Your task to perform on an android device: turn off improve location accuracy Image 0: 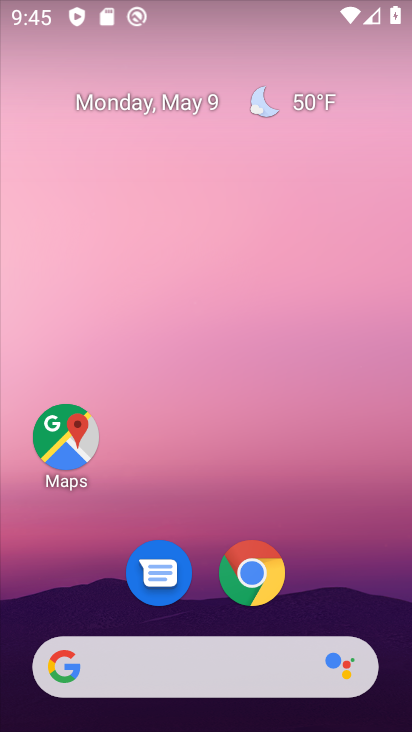
Step 0: drag from (331, 502) to (306, 0)
Your task to perform on an android device: turn off improve location accuracy Image 1: 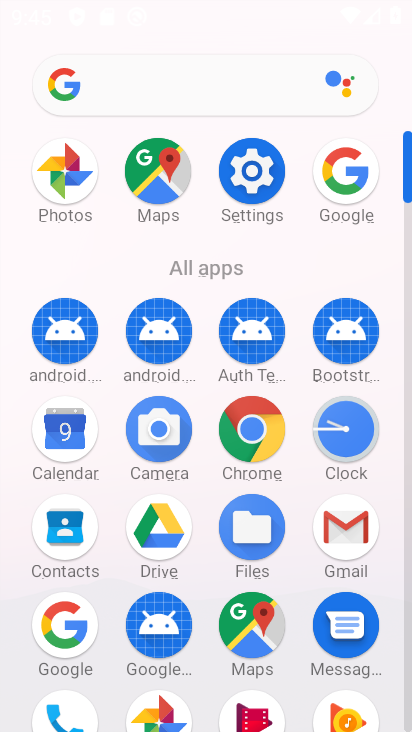
Step 1: click (261, 175)
Your task to perform on an android device: turn off improve location accuracy Image 2: 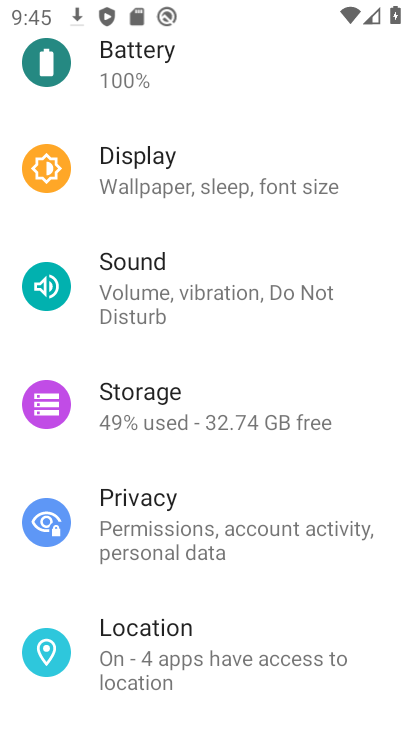
Step 2: drag from (235, 399) to (273, 165)
Your task to perform on an android device: turn off improve location accuracy Image 3: 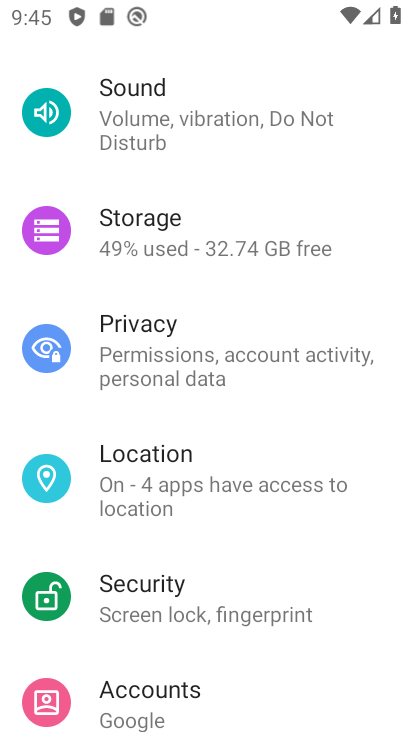
Step 3: click (187, 475)
Your task to perform on an android device: turn off improve location accuracy Image 4: 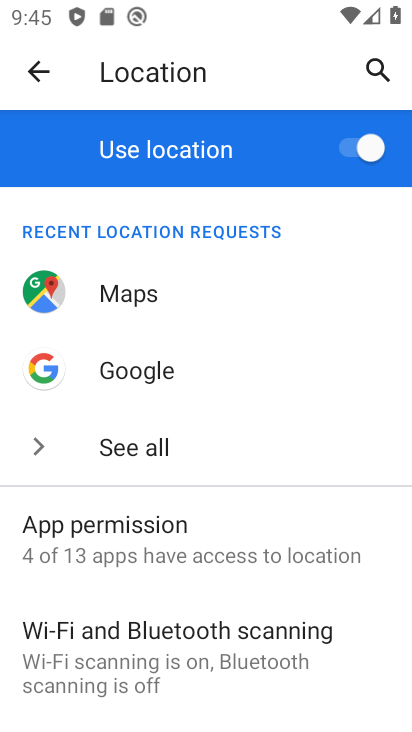
Step 4: drag from (180, 669) to (227, 194)
Your task to perform on an android device: turn off improve location accuracy Image 5: 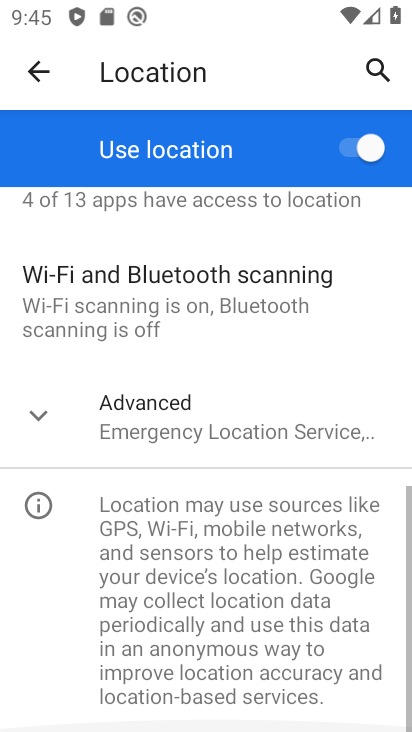
Step 5: click (152, 623)
Your task to perform on an android device: turn off improve location accuracy Image 6: 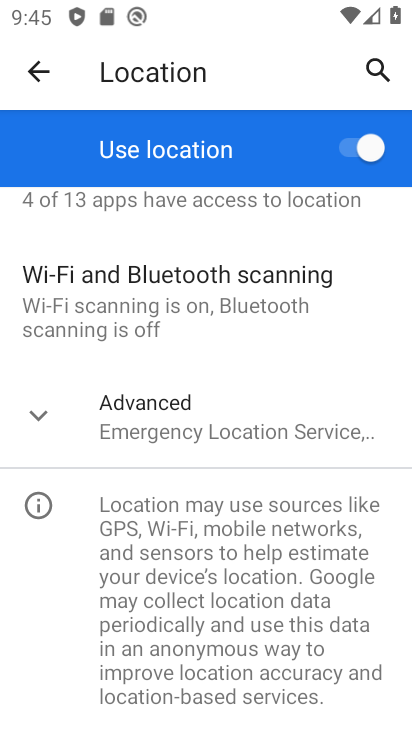
Step 6: click (176, 425)
Your task to perform on an android device: turn off improve location accuracy Image 7: 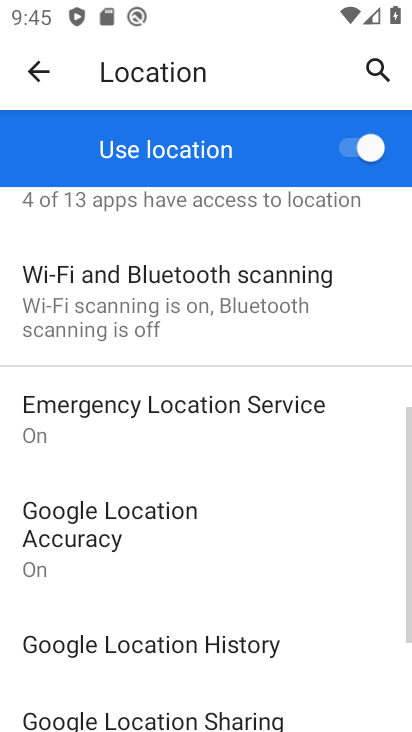
Step 7: drag from (271, 638) to (300, 353)
Your task to perform on an android device: turn off improve location accuracy Image 8: 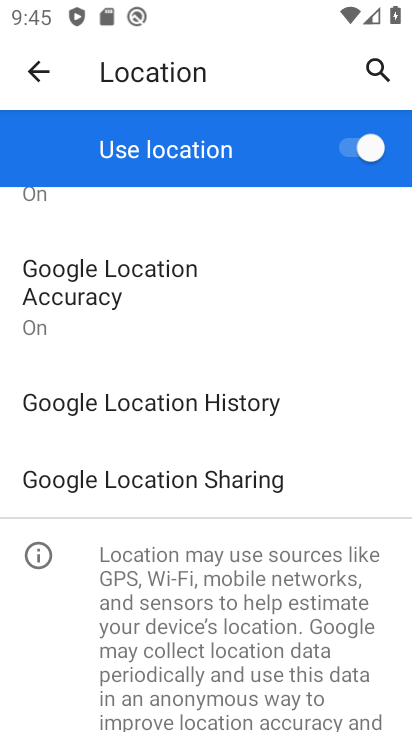
Step 8: click (145, 274)
Your task to perform on an android device: turn off improve location accuracy Image 9: 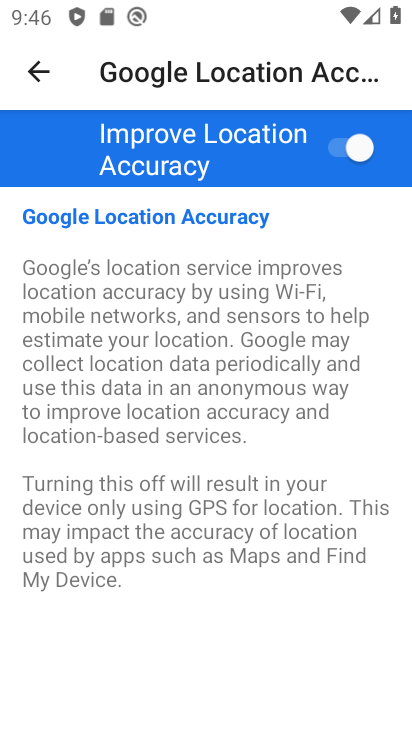
Step 9: click (353, 143)
Your task to perform on an android device: turn off improve location accuracy Image 10: 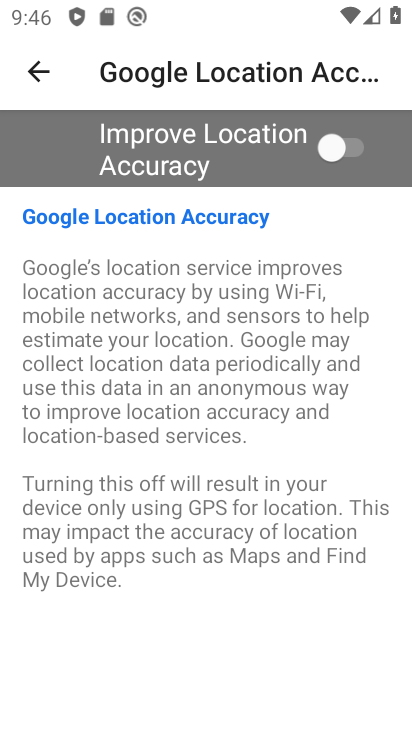
Step 10: task complete